Your task to perform on an android device: Open settings on Google Maps Image 0: 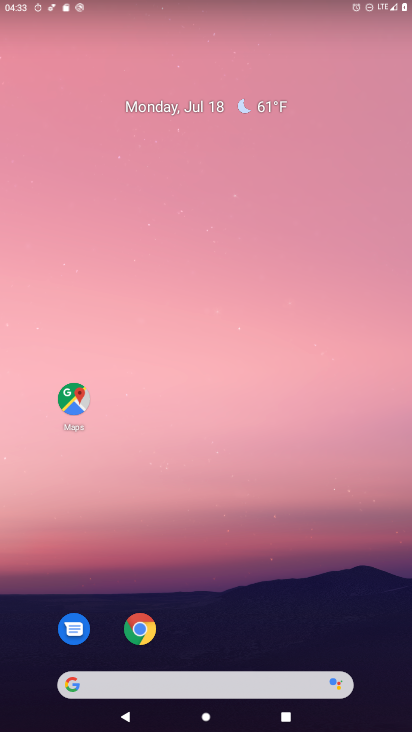
Step 0: click (73, 398)
Your task to perform on an android device: Open settings on Google Maps Image 1: 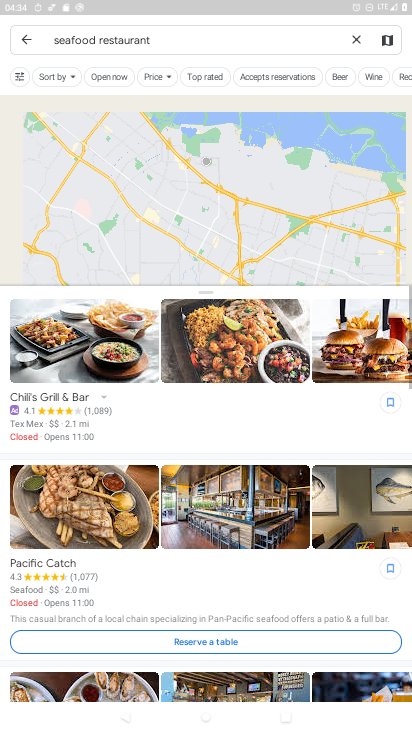
Step 1: press back button
Your task to perform on an android device: Open settings on Google Maps Image 2: 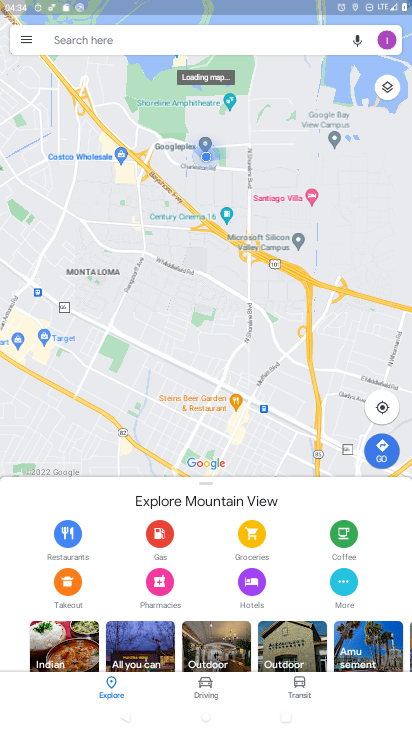
Step 2: click (28, 35)
Your task to perform on an android device: Open settings on Google Maps Image 3: 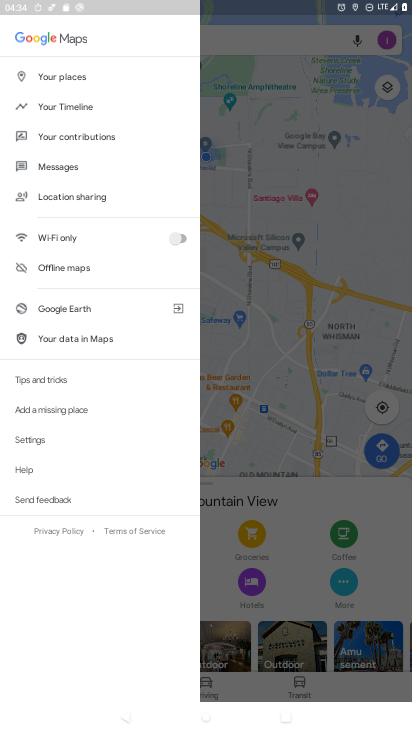
Step 3: click (37, 438)
Your task to perform on an android device: Open settings on Google Maps Image 4: 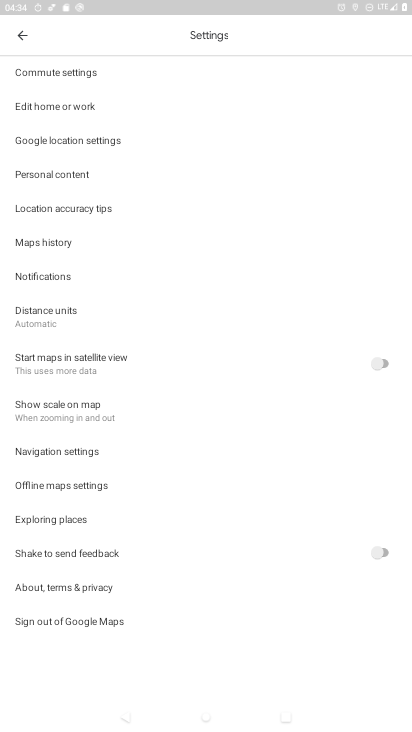
Step 4: task complete